Your task to perform on an android device: Go to Yahoo.com Image 0: 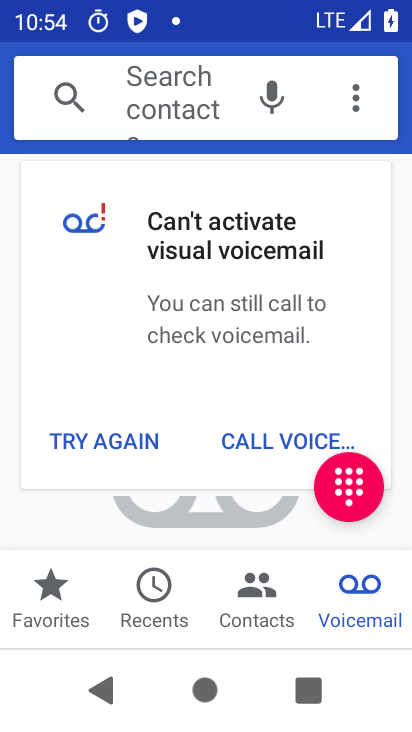
Step 0: press home button
Your task to perform on an android device: Go to Yahoo.com Image 1: 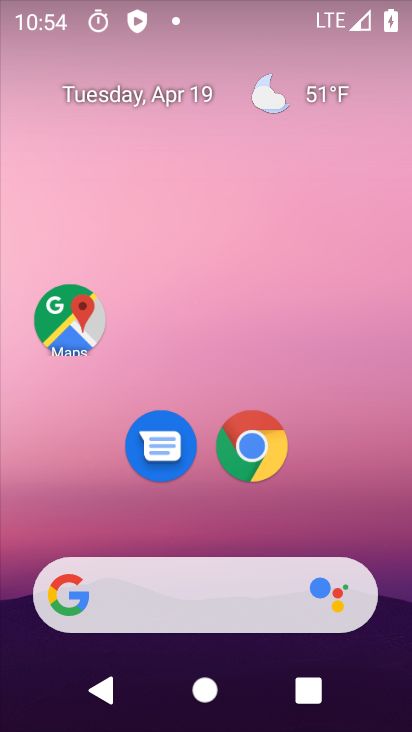
Step 1: click (247, 453)
Your task to perform on an android device: Go to Yahoo.com Image 2: 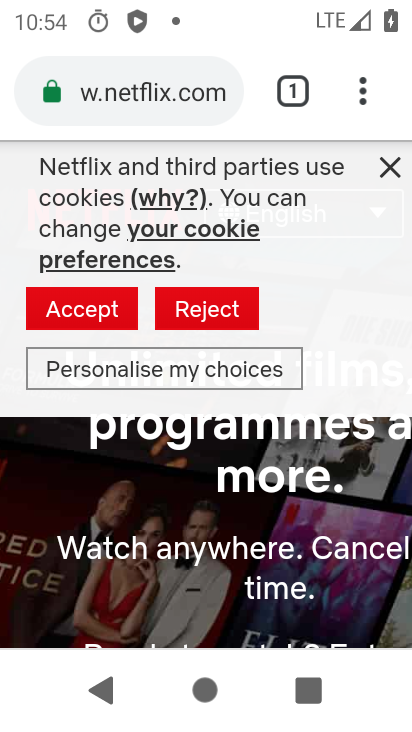
Step 2: click (356, 78)
Your task to perform on an android device: Go to Yahoo.com Image 3: 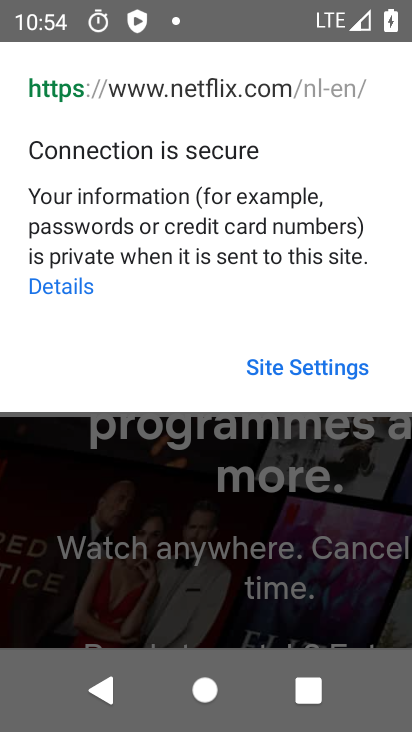
Step 3: press back button
Your task to perform on an android device: Go to Yahoo.com Image 4: 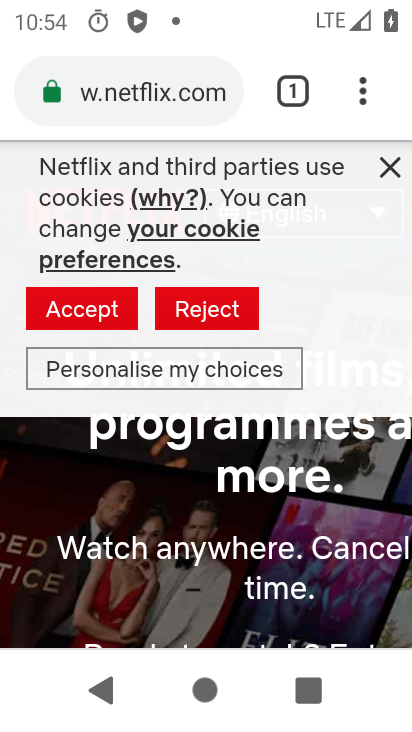
Step 4: click (229, 94)
Your task to perform on an android device: Go to Yahoo.com Image 5: 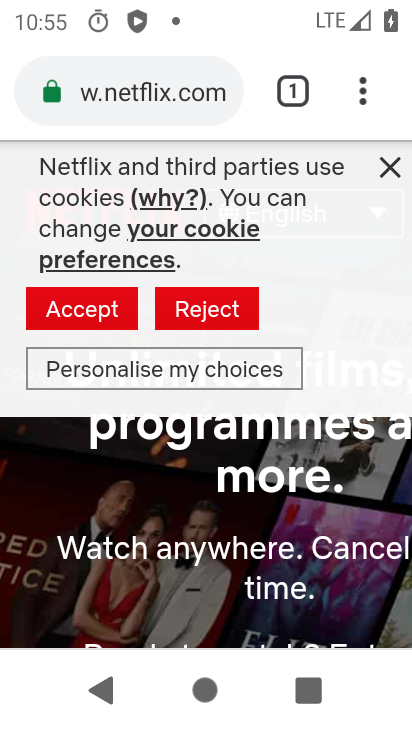
Step 5: click (232, 93)
Your task to perform on an android device: Go to Yahoo.com Image 6: 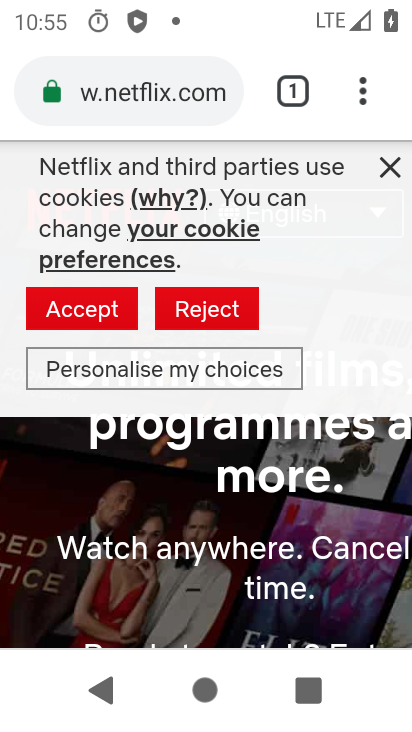
Step 6: click (225, 92)
Your task to perform on an android device: Go to Yahoo.com Image 7: 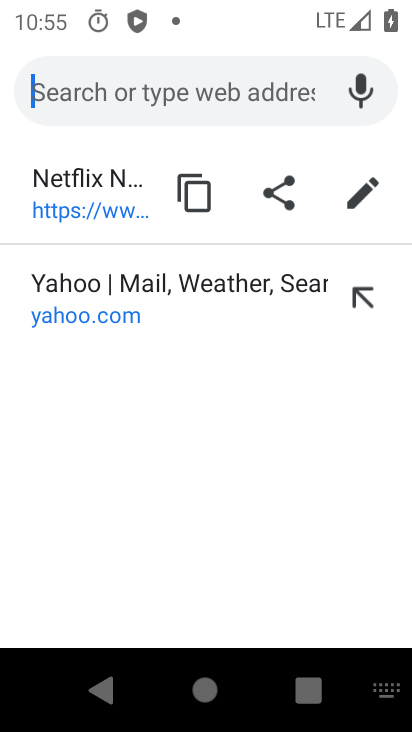
Step 7: type "Yahoo.com"
Your task to perform on an android device: Go to Yahoo.com Image 8: 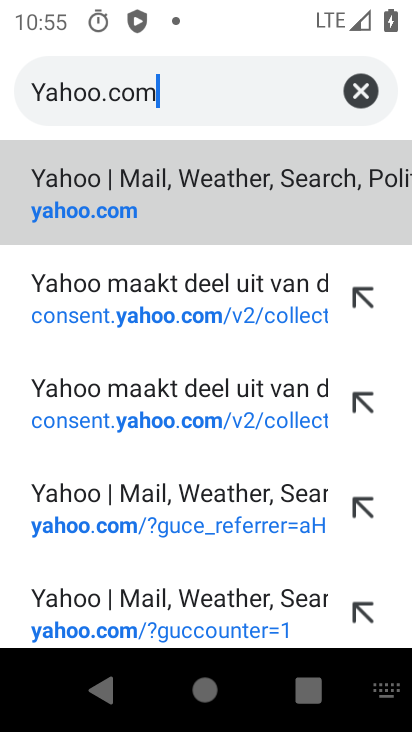
Step 8: click (64, 191)
Your task to perform on an android device: Go to Yahoo.com Image 9: 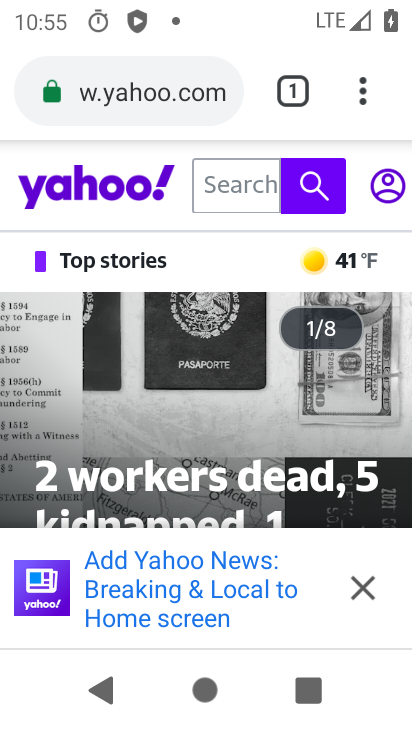
Step 9: task complete